Your task to perform on an android device: add a label to a message in the gmail app Image 0: 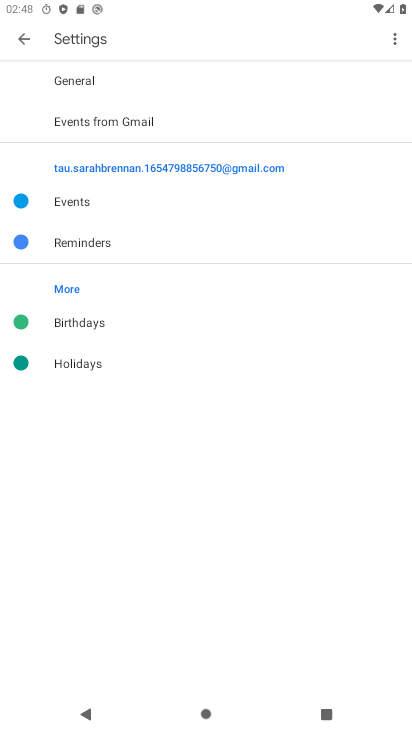
Step 0: press home button
Your task to perform on an android device: add a label to a message in the gmail app Image 1: 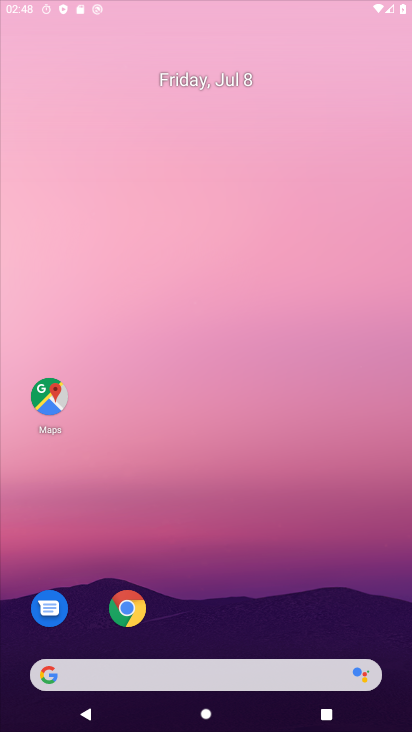
Step 1: drag from (209, 596) to (147, 186)
Your task to perform on an android device: add a label to a message in the gmail app Image 2: 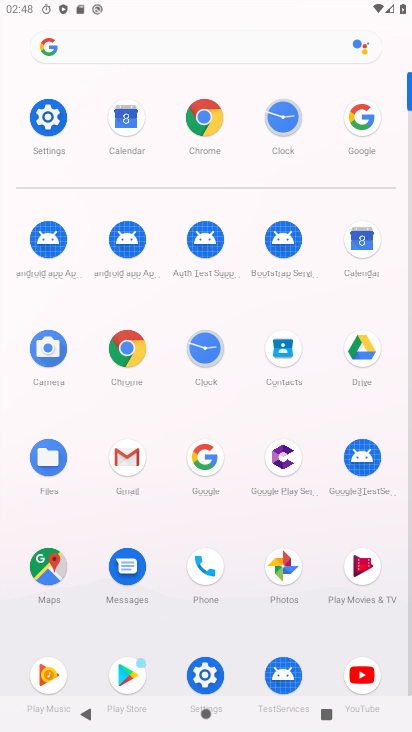
Step 2: click (131, 459)
Your task to perform on an android device: add a label to a message in the gmail app Image 3: 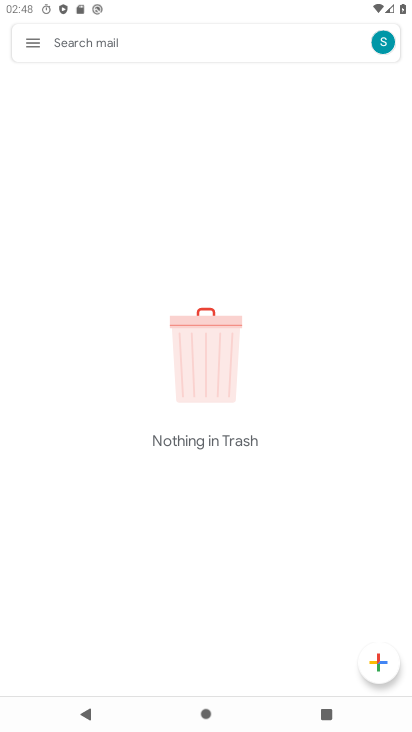
Step 3: click (28, 42)
Your task to perform on an android device: add a label to a message in the gmail app Image 4: 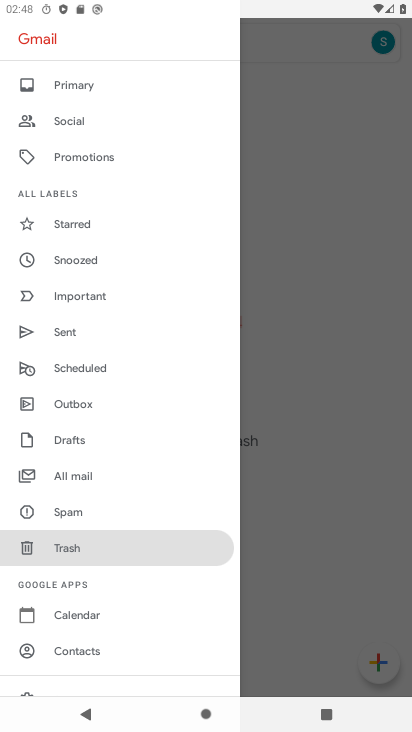
Step 4: click (84, 475)
Your task to perform on an android device: add a label to a message in the gmail app Image 5: 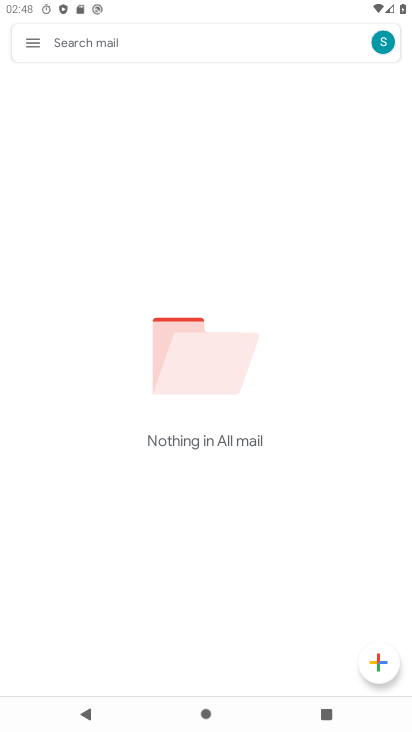
Step 5: task complete